Your task to perform on an android device: turn off wifi Image 0: 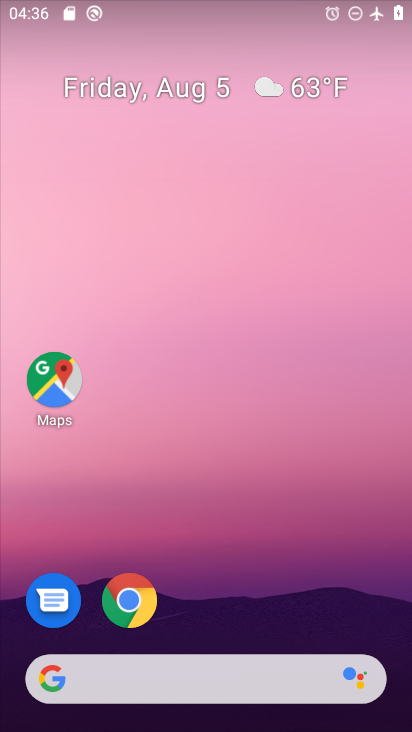
Step 0: drag from (208, 677) to (285, 175)
Your task to perform on an android device: turn off wifi Image 1: 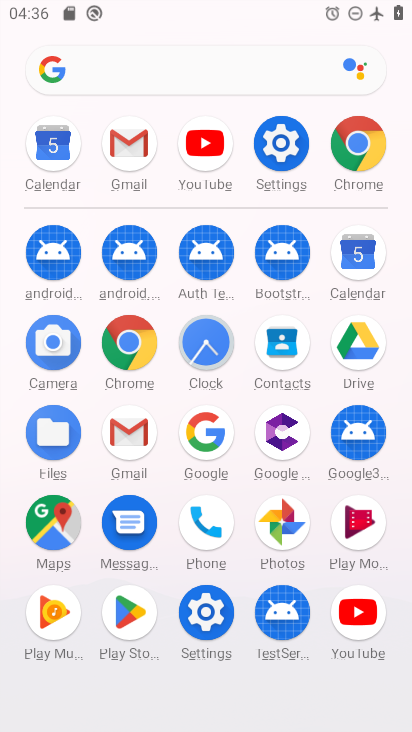
Step 1: click (277, 142)
Your task to perform on an android device: turn off wifi Image 2: 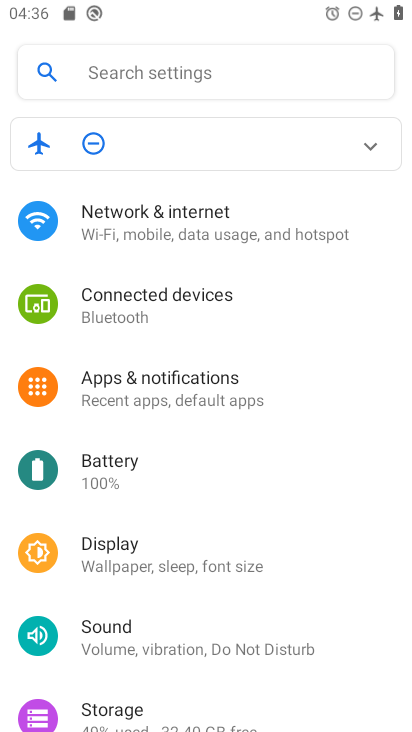
Step 2: click (208, 232)
Your task to perform on an android device: turn off wifi Image 3: 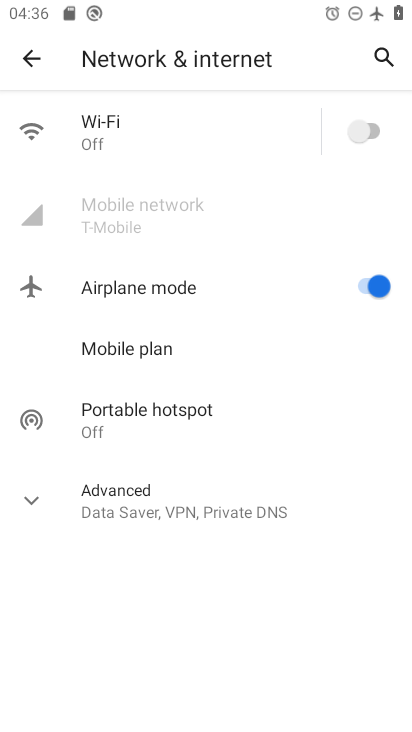
Step 3: task complete